Your task to perform on an android device: change text size in settings app Image 0: 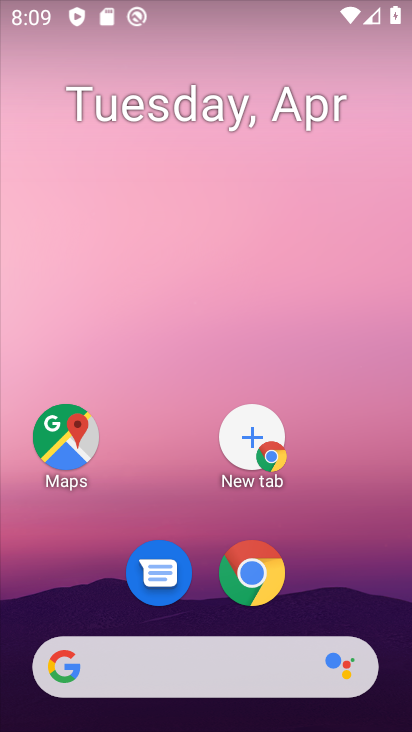
Step 0: drag from (236, 441) to (341, 35)
Your task to perform on an android device: change text size in settings app Image 1: 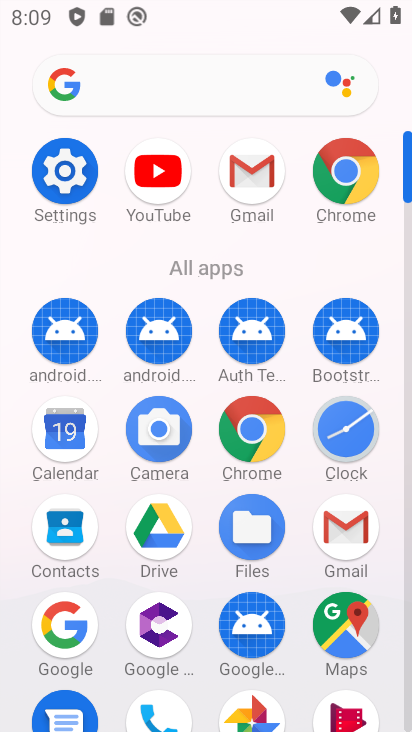
Step 1: click (59, 164)
Your task to perform on an android device: change text size in settings app Image 2: 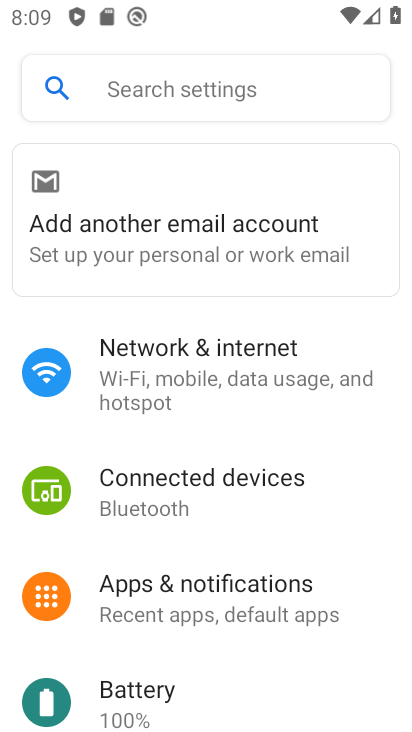
Step 2: drag from (349, 683) to (335, 56)
Your task to perform on an android device: change text size in settings app Image 3: 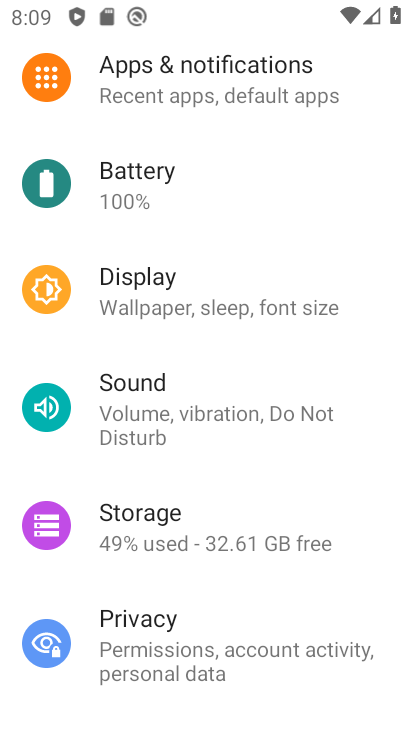
Step 3: click (280, 316)
Your task to perform on an android device: change text size in settings app Image 4: 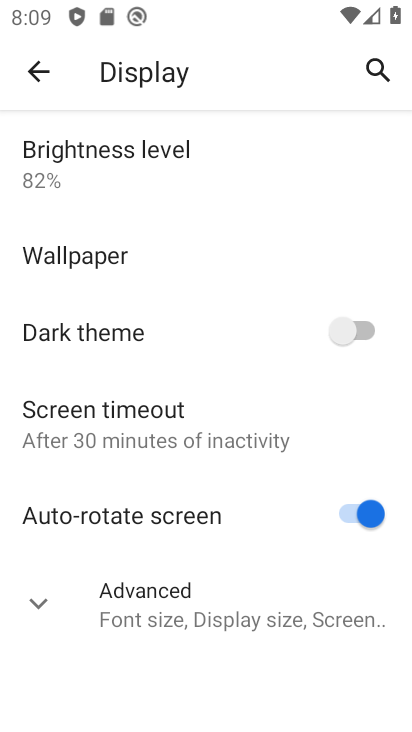
Step 4: click (201, 610)
Your task to perform on an android device: change text size in settings app Image 5: 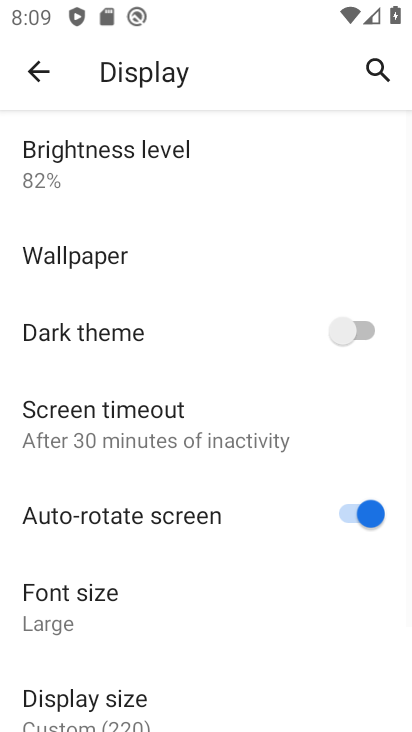
Step 5: click (201, 610)
Your task to perform on an android device: change text size in settings app Image 6: 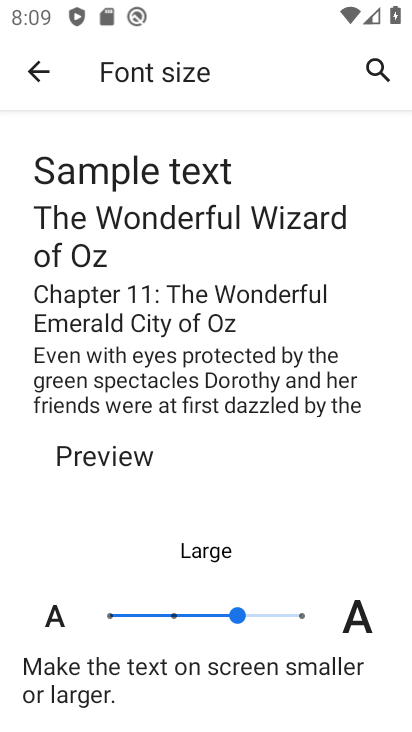
Step 6: click (107, 612)
Your task to perform on an android device: change text size in settings app Image 7: 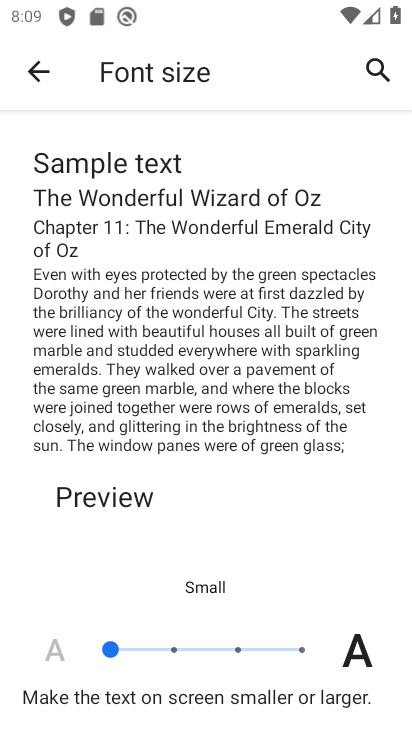
Step 7: task complete